Your task to perform on an android device: toggle improve location accuracy Image 0: 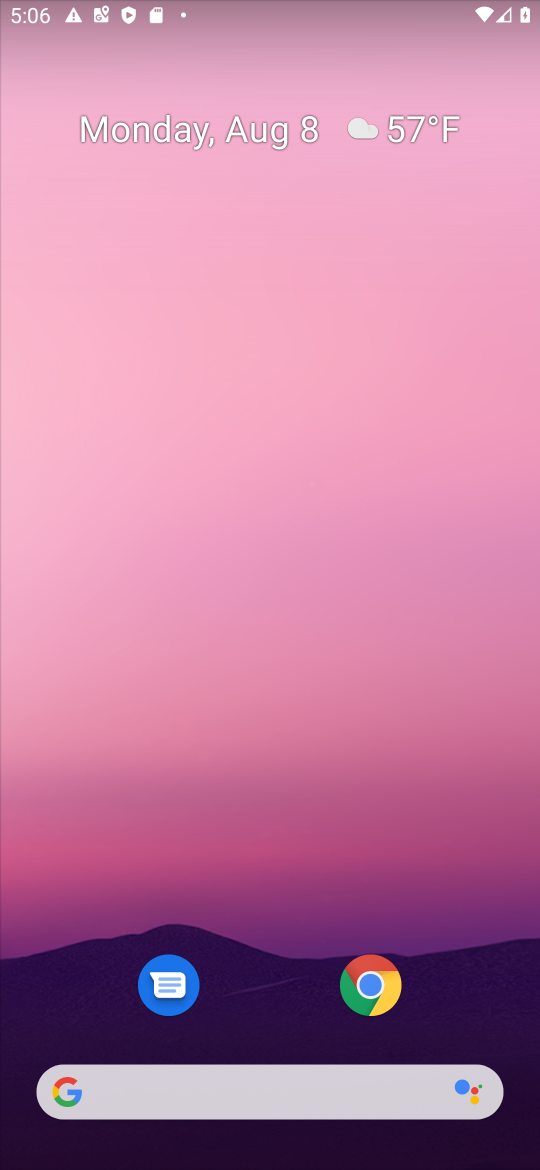
Step 0: drag from (272, 796) to (507, 11)
Your task to perform on an android device: toggle improve location accuracy Image 1: 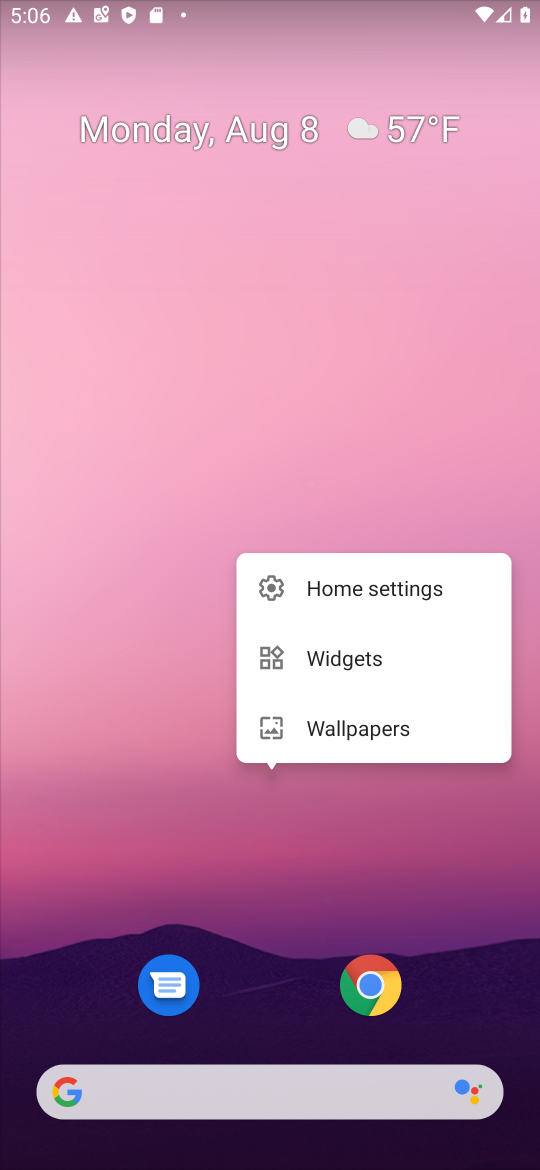
Step 1: click (157, 694)
Your task to perform on an android device: toggle improve location accuracy Image 2: 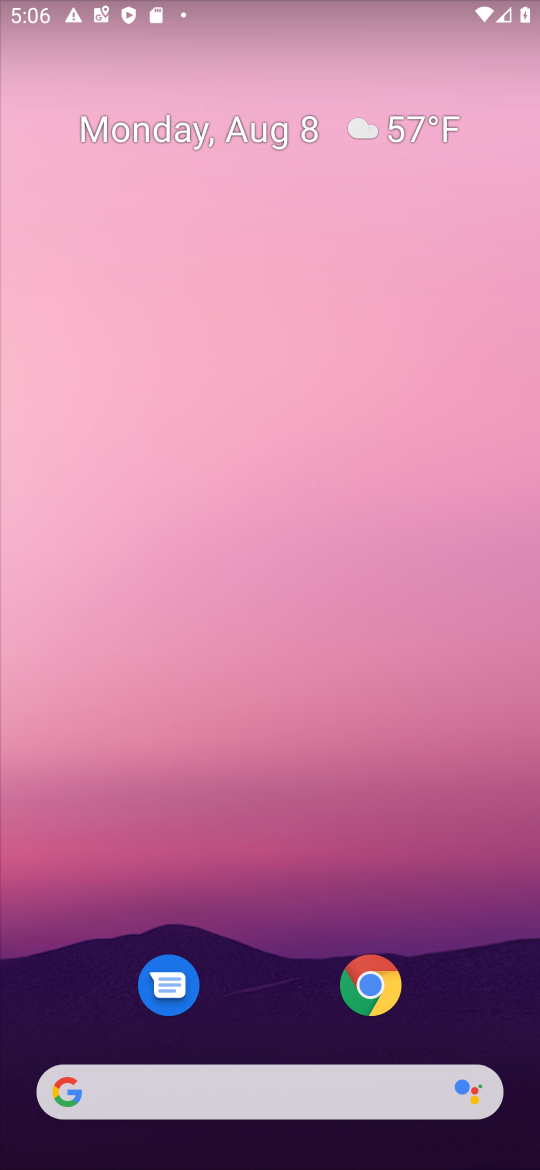
Step 2: drag from (344, 795) to (436, 239)
Your task to perform on an android device: toggle improve location accuracy Image 3: 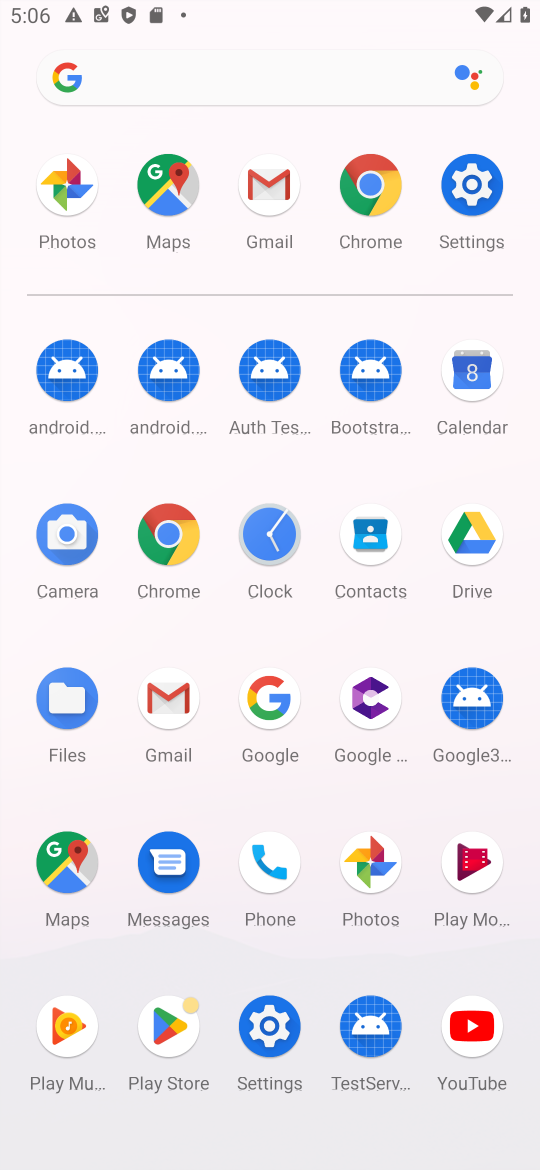
Step 3: click (469, 171)
Your task to perform on an android device: toggle improve location accuracy Image 4: 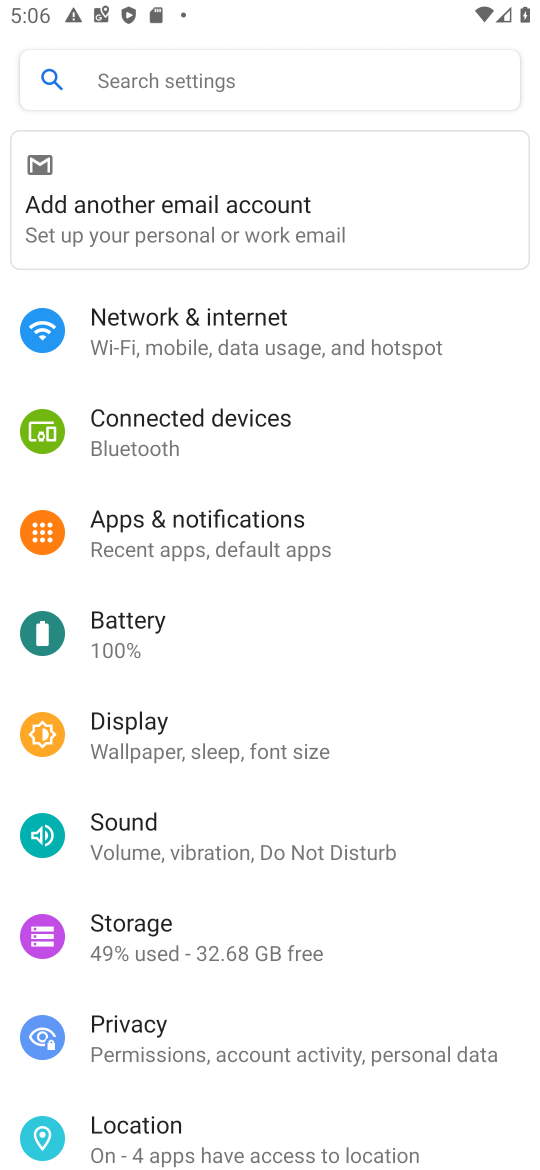
Step 4: click (179, 1132)
Your task to perform on an android device: toggle improve location accuracy Image 5: 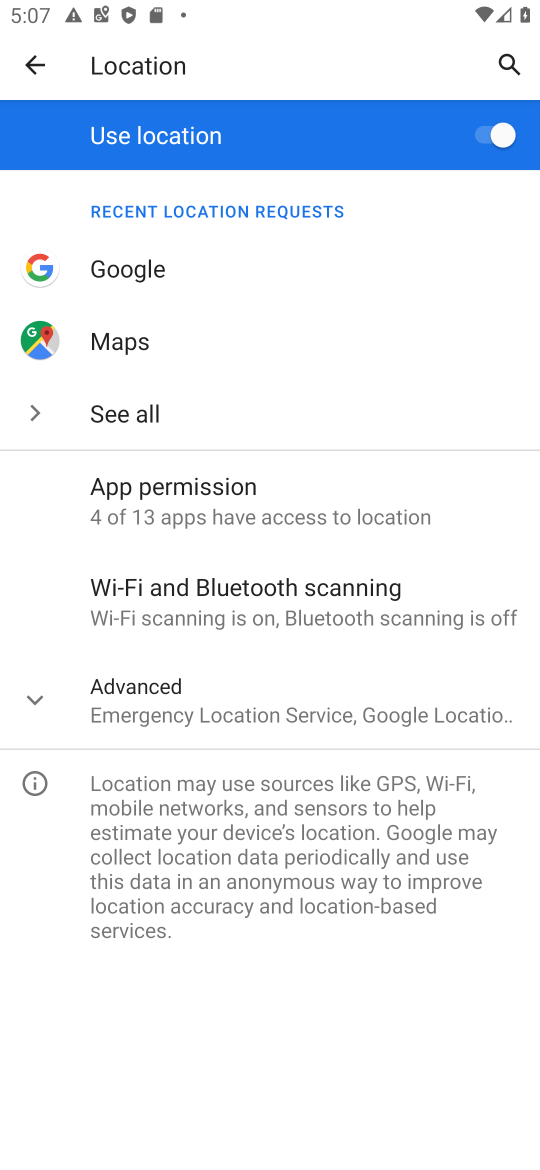
Step 5: task complete